Your task to perform on an android device: manage bookmarks in the chrome app Image 0: 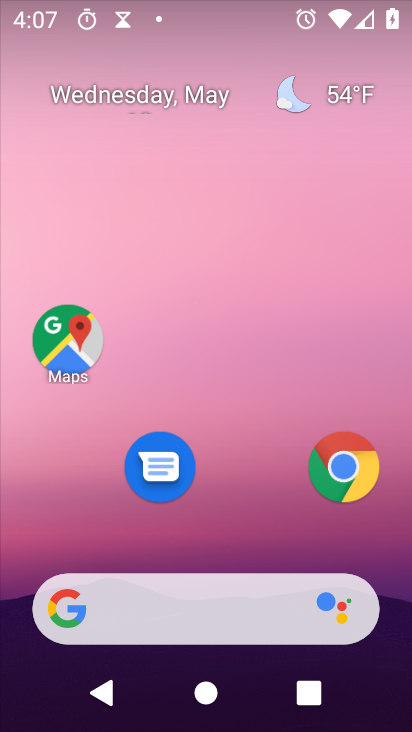
Step 0: click (344, 465)
Your task to perform on an android device: manage bookmarks in the chrome app Image 1: 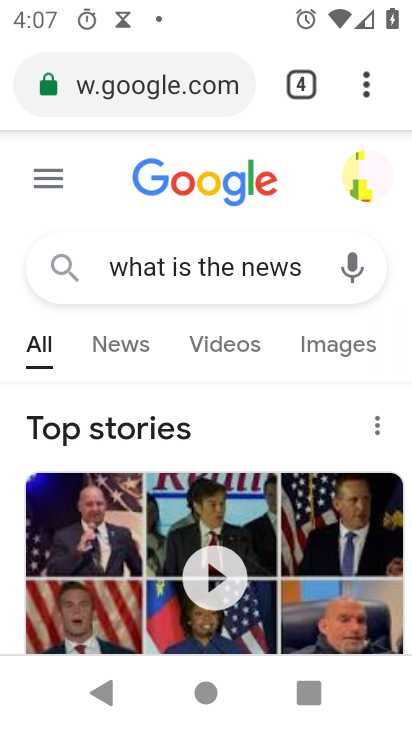
Step 1: click (384, 94)
Your task to perform on an android device: manage bookmarks in the chrome app Image 2: 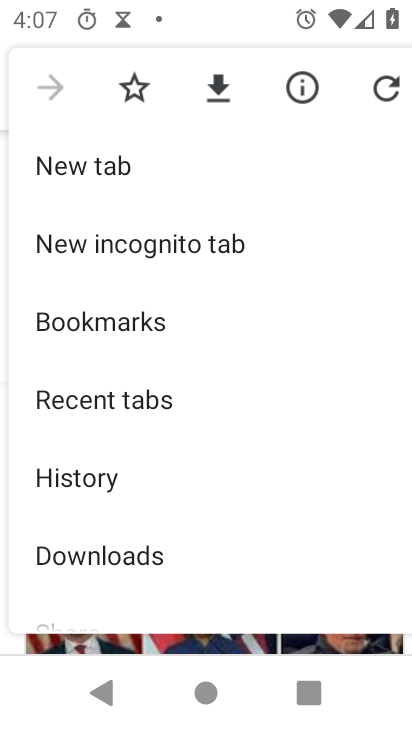
Step 2: click (220, 324)
Your task to perform on an android device: manage bookmarks in the chrome app Image 3: 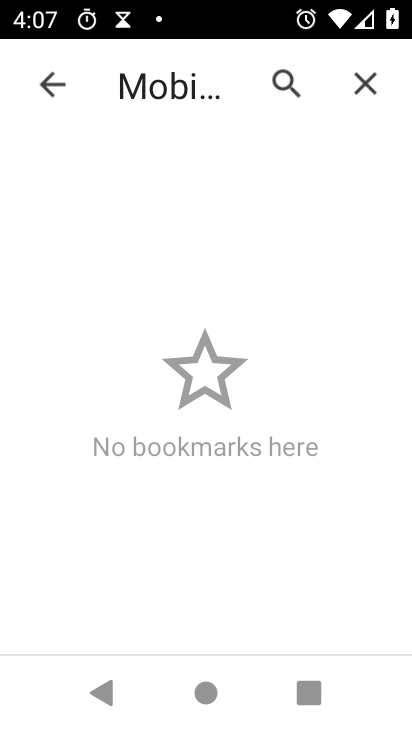
Step 3: task complete